Your task to perform on an android device: Go to wifi settings Image 0: 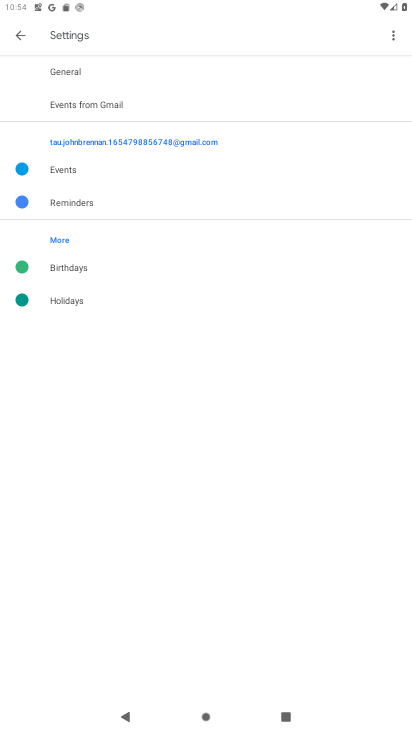
Step 0: press home button
Your task to perform on an android device: Go to wifi settings Image 1: 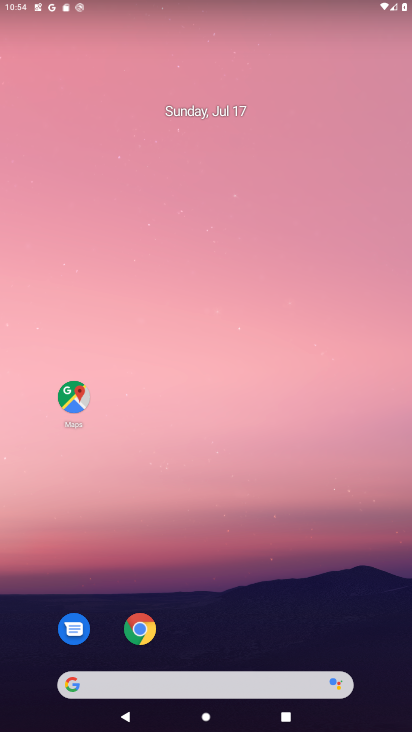
Step 1: drag from (209, 680) to (306, 144)
Your task to perform on an android device: Go to wifi settings Image 2: 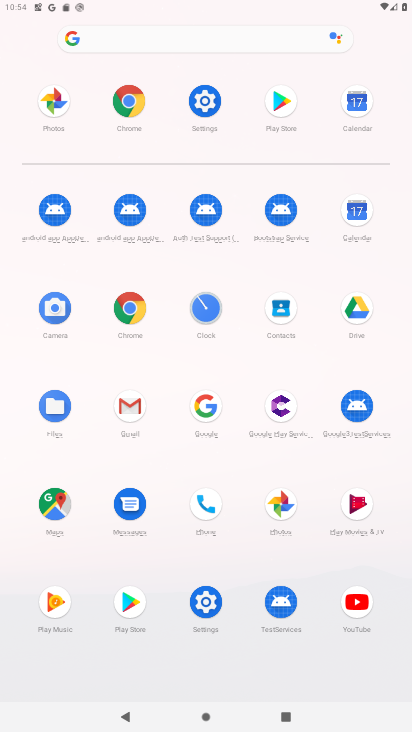
Step 2: click (205, 101)
Your task to perform on an android device: Go to wifi settings Image 3: 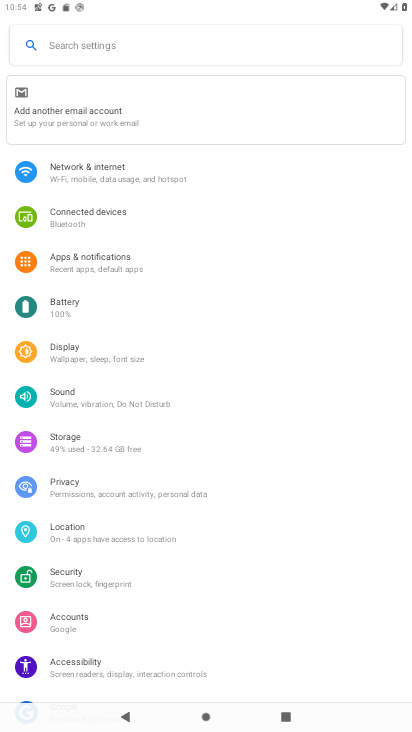
Step 3: click (105, 177)
Your task to perform on an android device: Go to wifi settings Image 4: 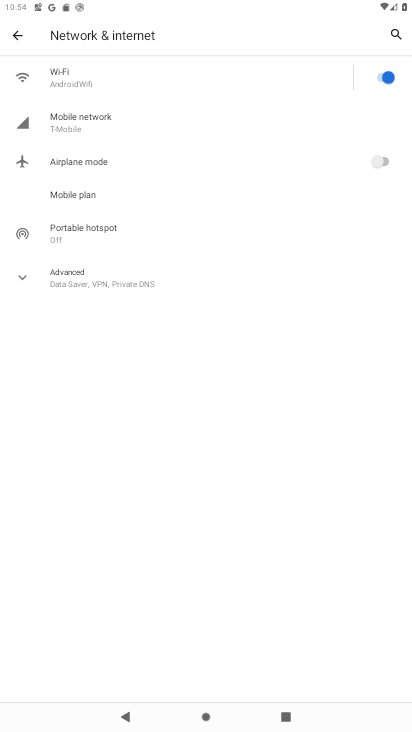
Step 4: click (82, 81)
Your task to perform on an android device: Go to wifi settings Image 5: 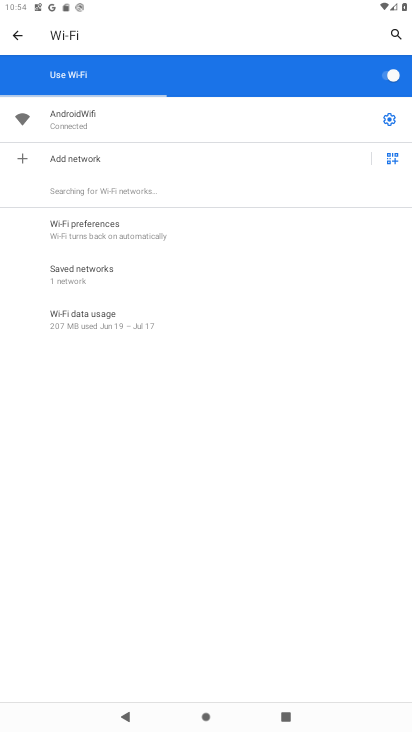
Step 5: click (69, 120)
Your task to perform on an android device: Go to wifi settings Image 6: 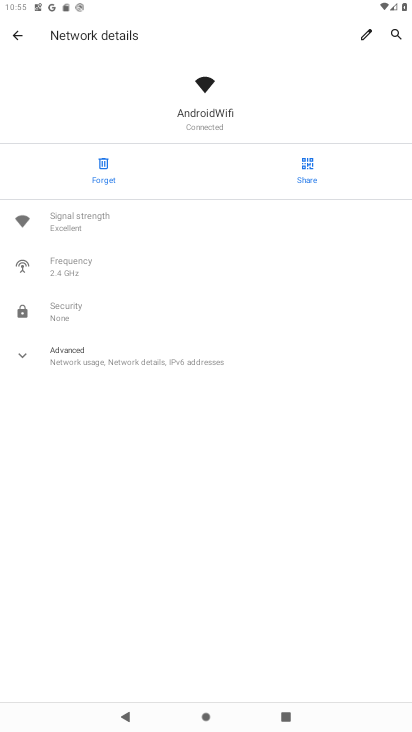
Step 6: task complete